Your task to perform on an android device: What's the weather going to be tomorrow? Image 0: 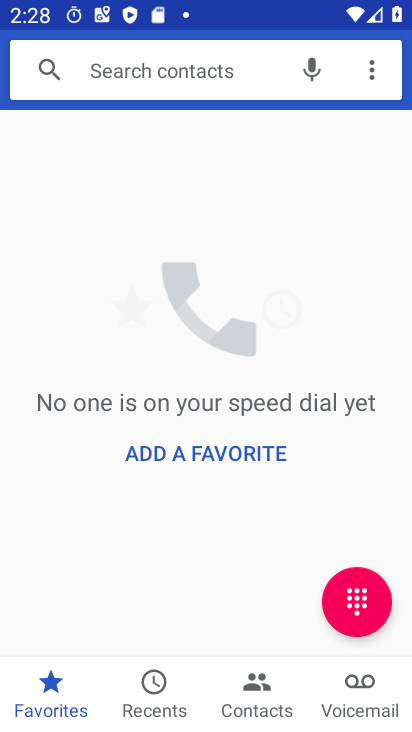
Step 0: press home button
Your task to perform on an android device: What's the weather going to be tomorrow? Image 1: 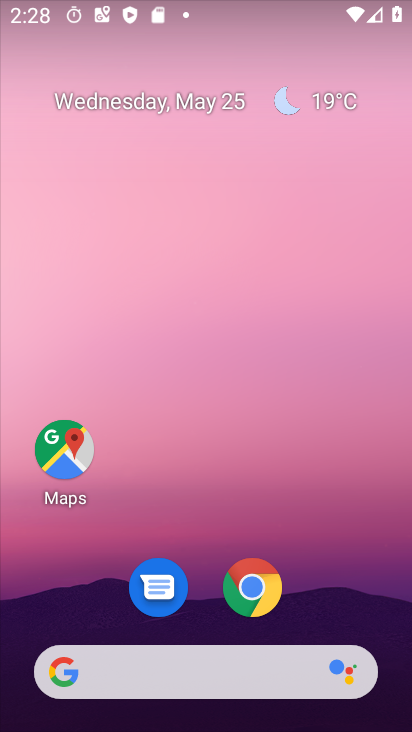
Step 1: drag from (317, 587) to (310, 102)
Your task to perform on an android device: What's the weather going to be tomorrow? Image 2: 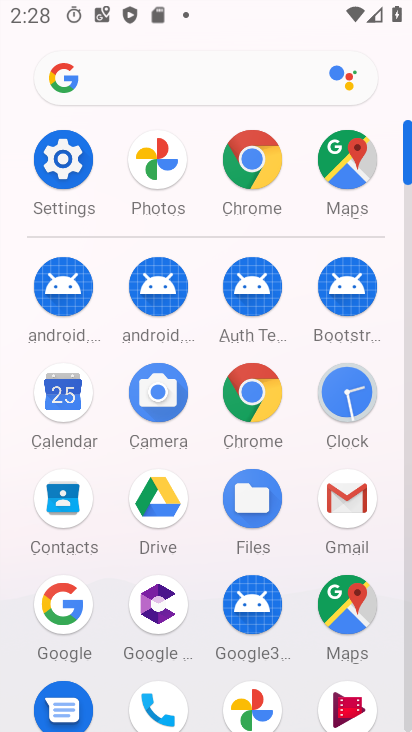
Step 2: click (65, 602)
Your task to perform on an android device: What's the weather going to be tomorrow? Image 3: 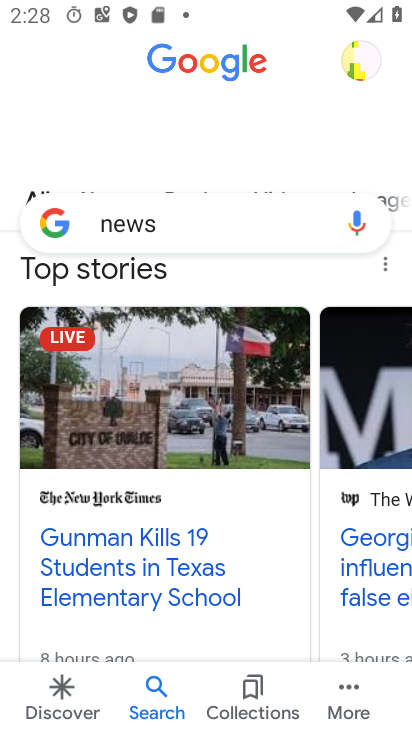
Step 3: click (204, 224)
Your task to perform on an android device: What's the weather going to be tomorrow? Image 4: 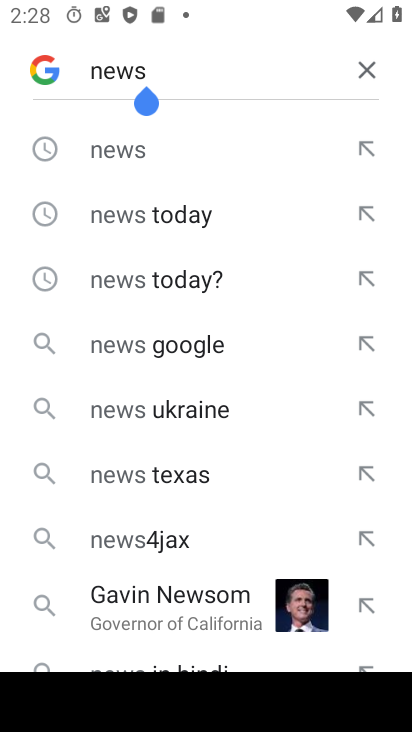
Step 4: click (366, 71)
Your task to perform on an android device: What's the weather going to be tomorrow? Image 5: 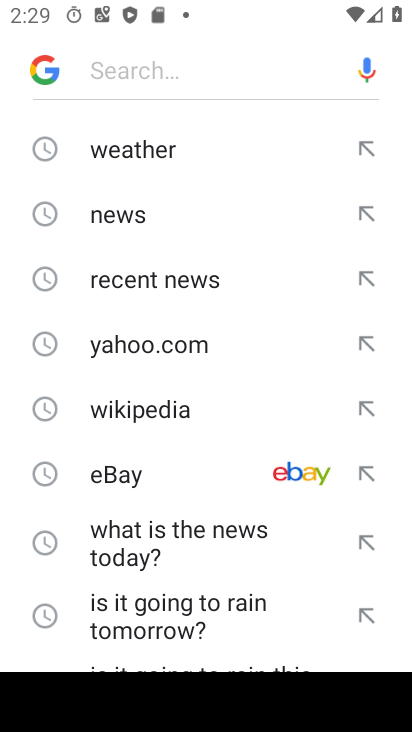
Step 5: type "weather going to be tomorrow"
Your task to perform on an android device: What's the weather going to be tomorrow? Image 6: 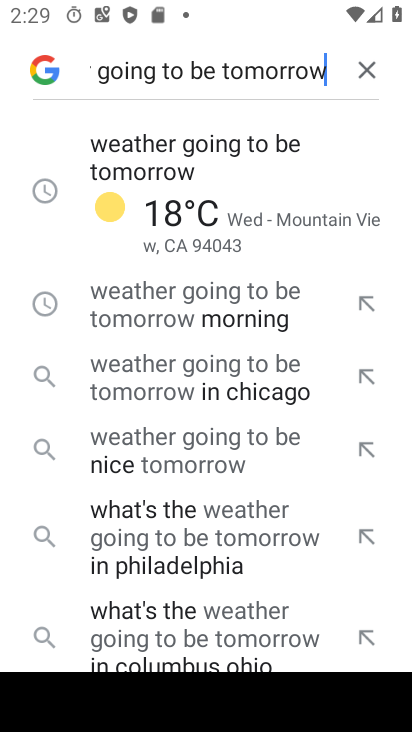
Step 6: click (214, 169)
Your task to perform on an android device: What's the weather going to be tomorrow? Image 7: 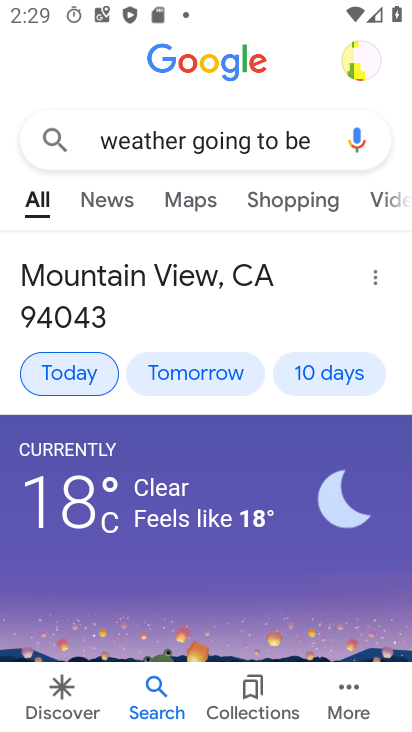
Step 7: task complete